Your task to perform on an android device: Open the Play Movies app and select the watchlist tab. Image 0: 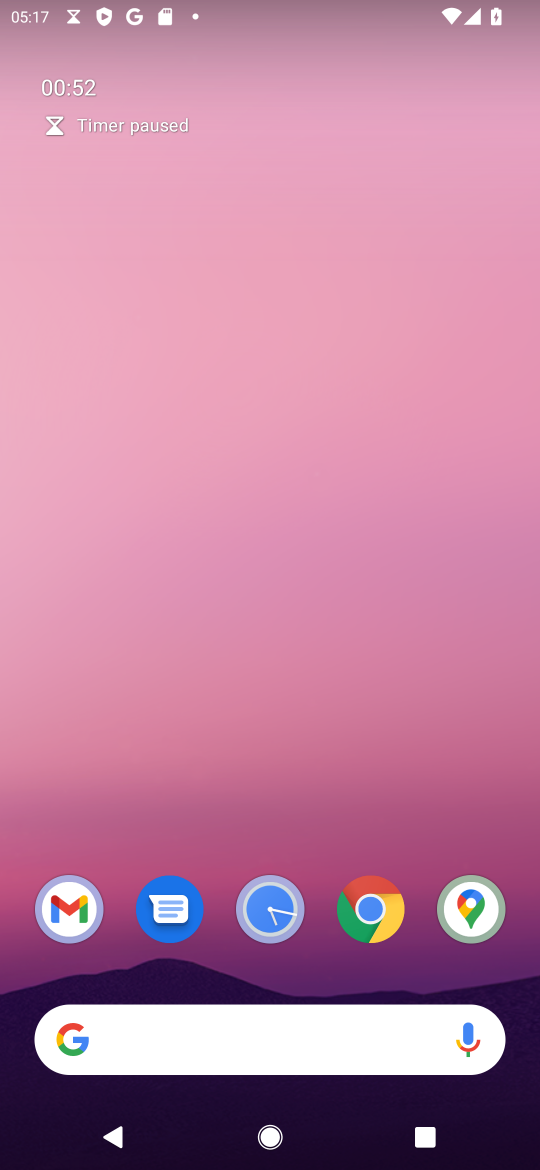
Step 0: press home button
Your task to perform on an android device: Open the Play Movies app and select the watchlist tab. Image 1: 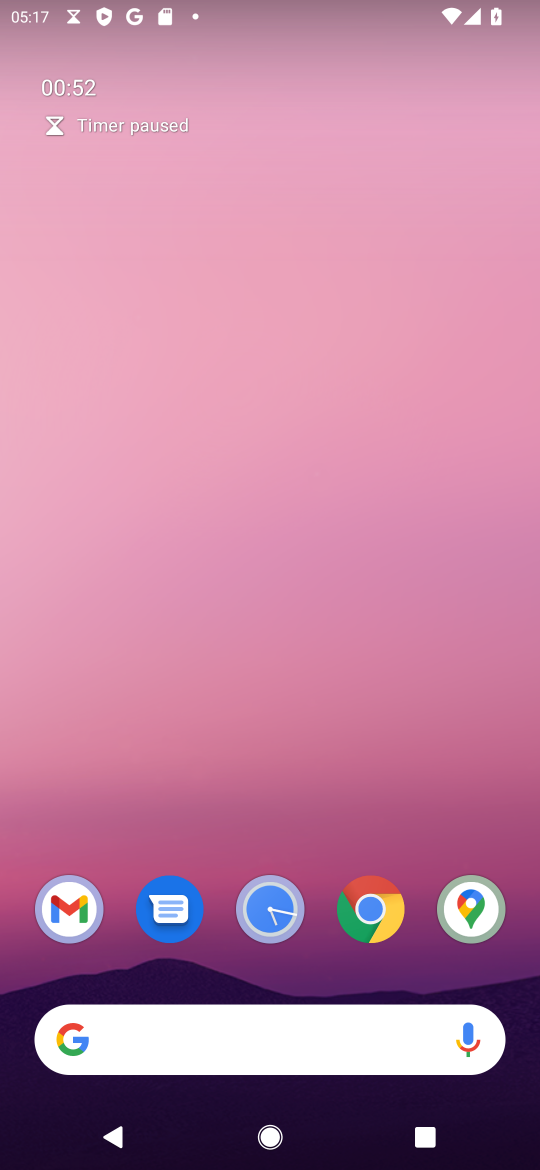
Step 1: task complete